Your task to perform on an android device: turn smart compose on in the gmail app Image 0: 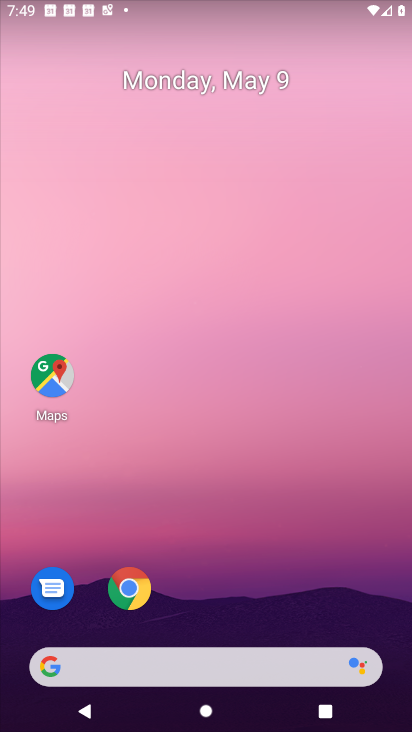
Step 0: drag from (148, 663) to (355, 13)
Your task to perform on an android device: turn smart compose on in the gmail app Image 1: 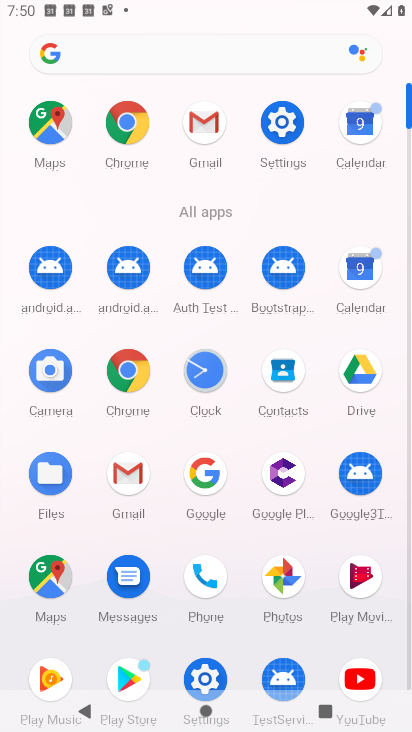
Step 1: click (203, 128)
Your task to perform on an android device: turn smart compose on in the gmail app Image 2: 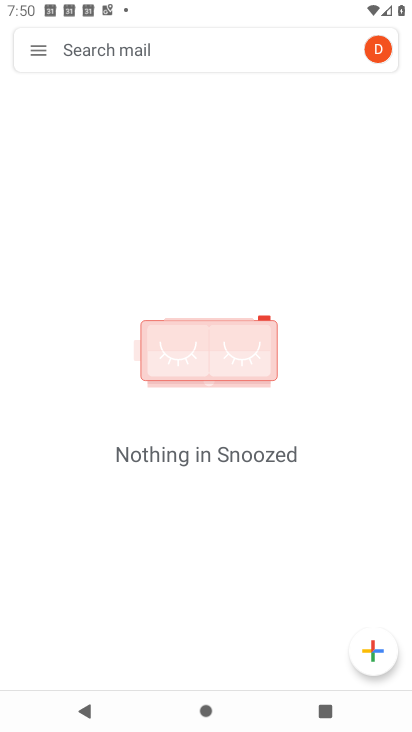
Step 2: click (31, 50)
Your task to perform on an android device: turn smart compose on in the gmail app Image 3: 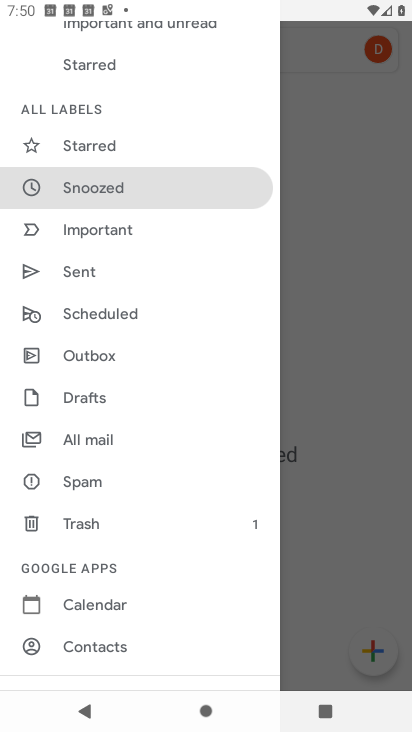
Step 3: drag from (190, 629) to (268, 187)
Your task to perform on an android device: turn smart compose on in the gmail app Image 4: 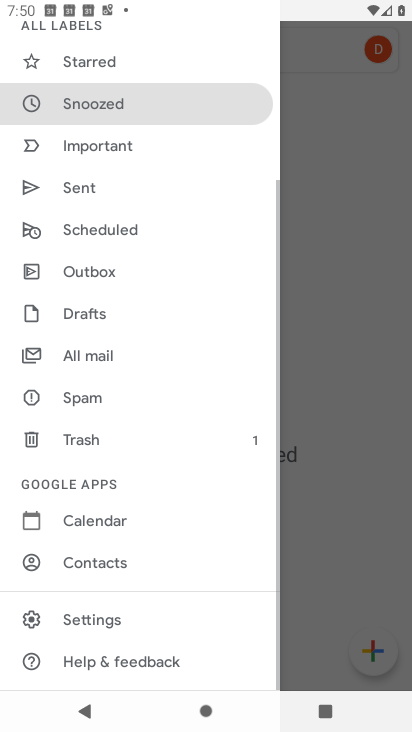
Step 4: click (80, 622)
Your task to perform on an android device: turn smart compose on in the gmail app Image 5: 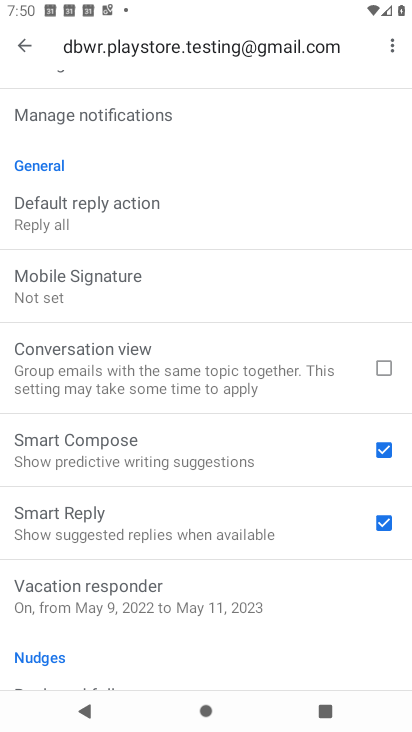
Step 5: task complete